Your task to perform on an android device: set the timer Image 0: 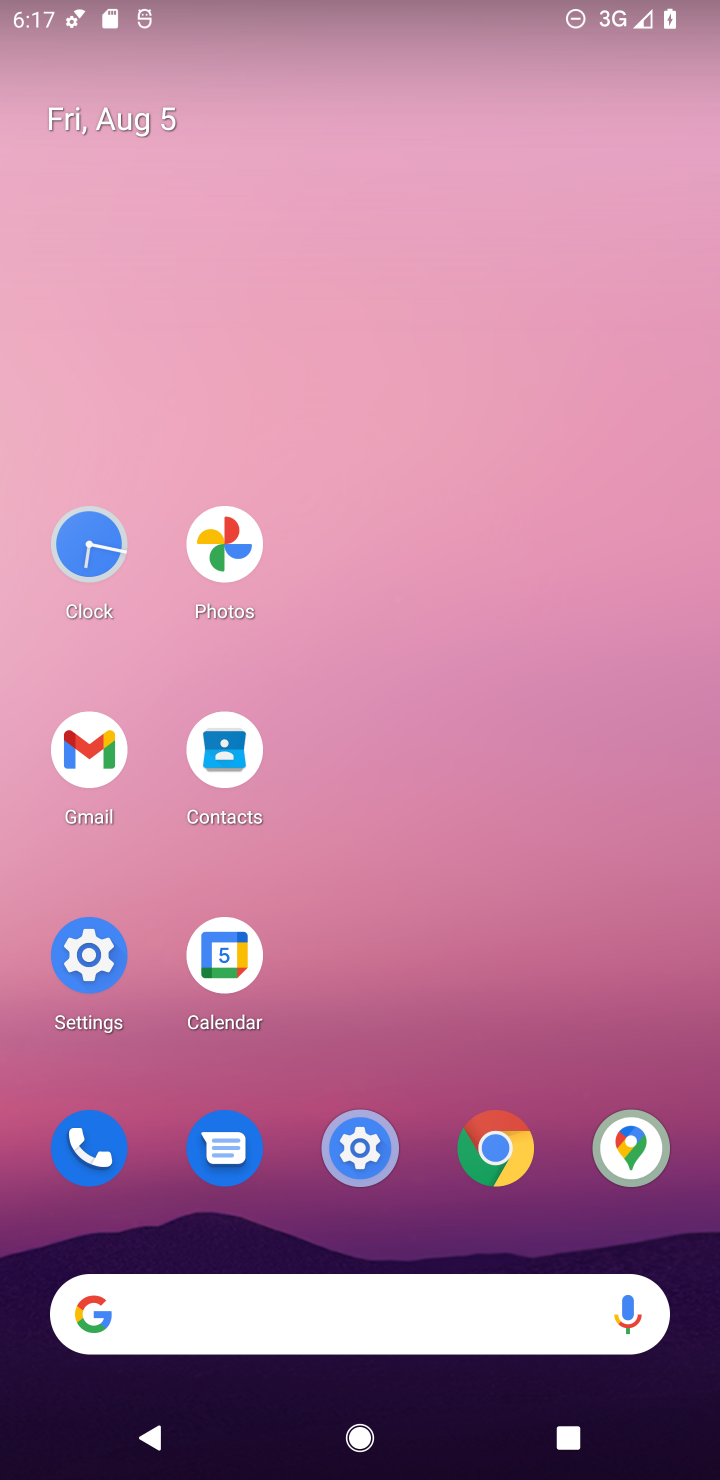
Step 0: click (90, 541)
Your task to perform on an android device: set the timer Image 1: 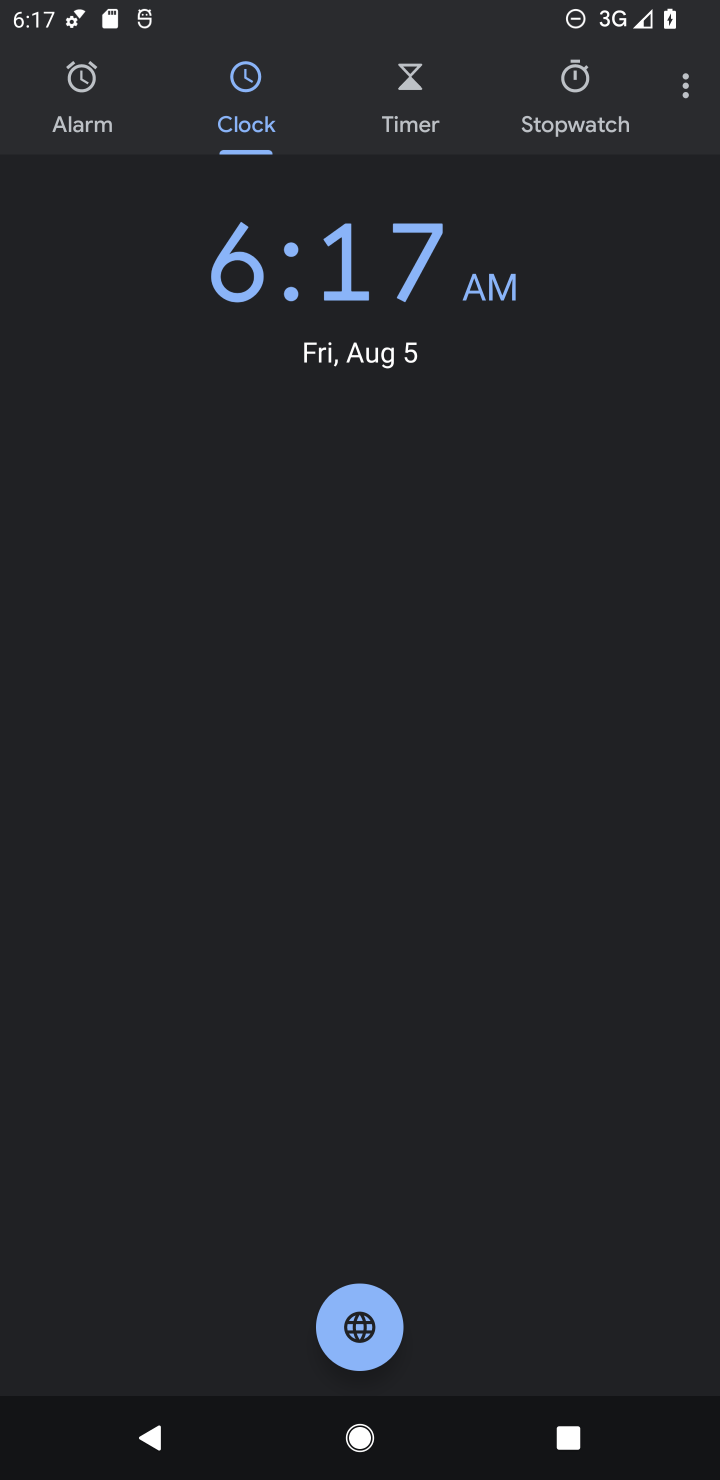
Step 1: click (415, 90)
Your task to perform on an android device: set the timer Image 2: 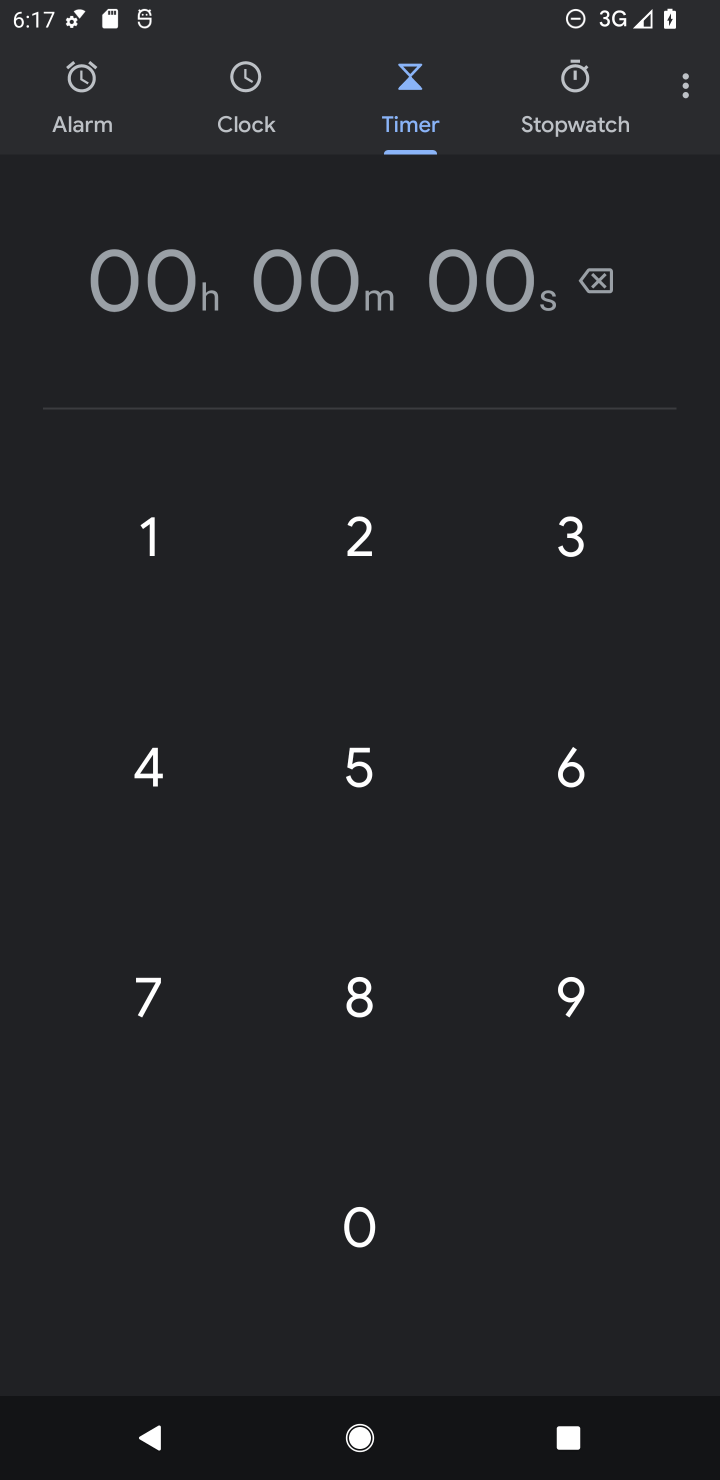
Step 2: click (149, 534)
Your task to perform on an android device: set the timer Image 3: 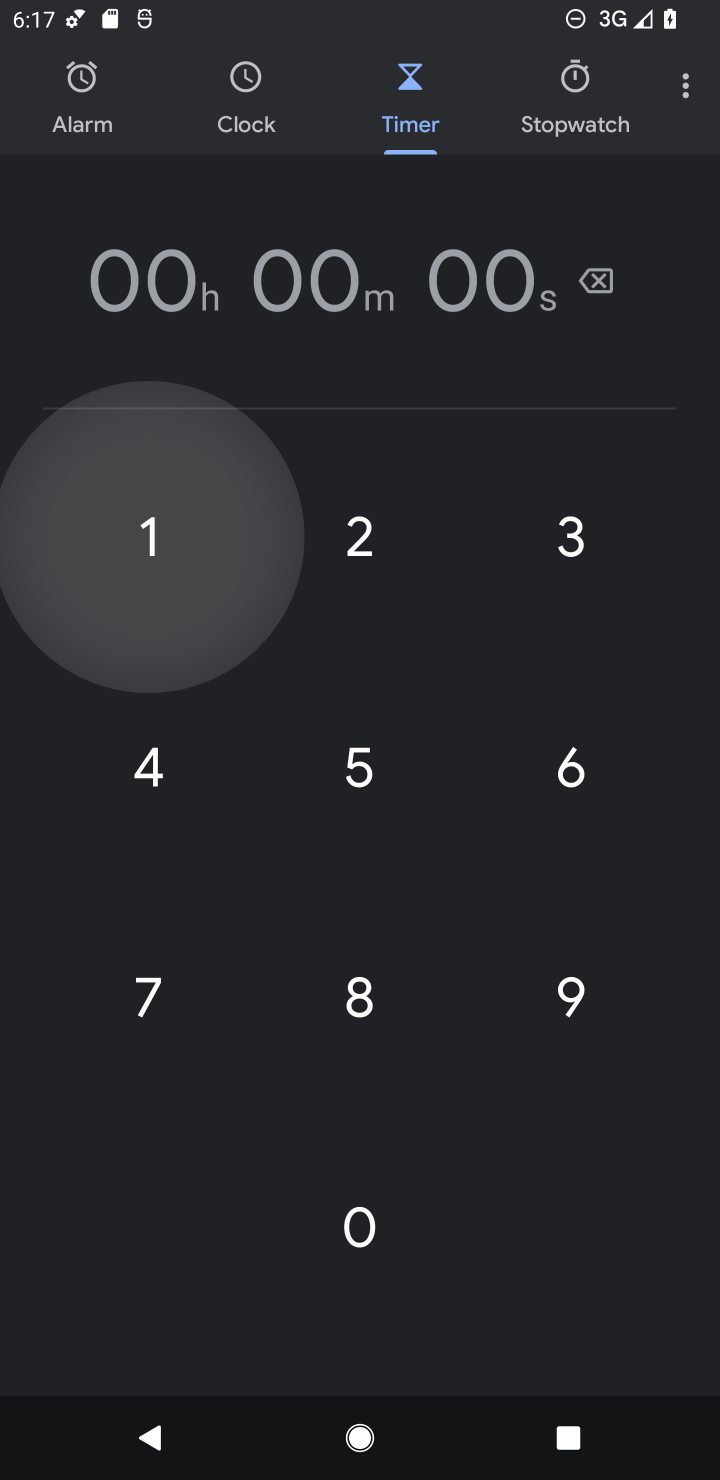
Step 3: click (149, 534)
Your task to perform on an android device: set the timer Image 4: 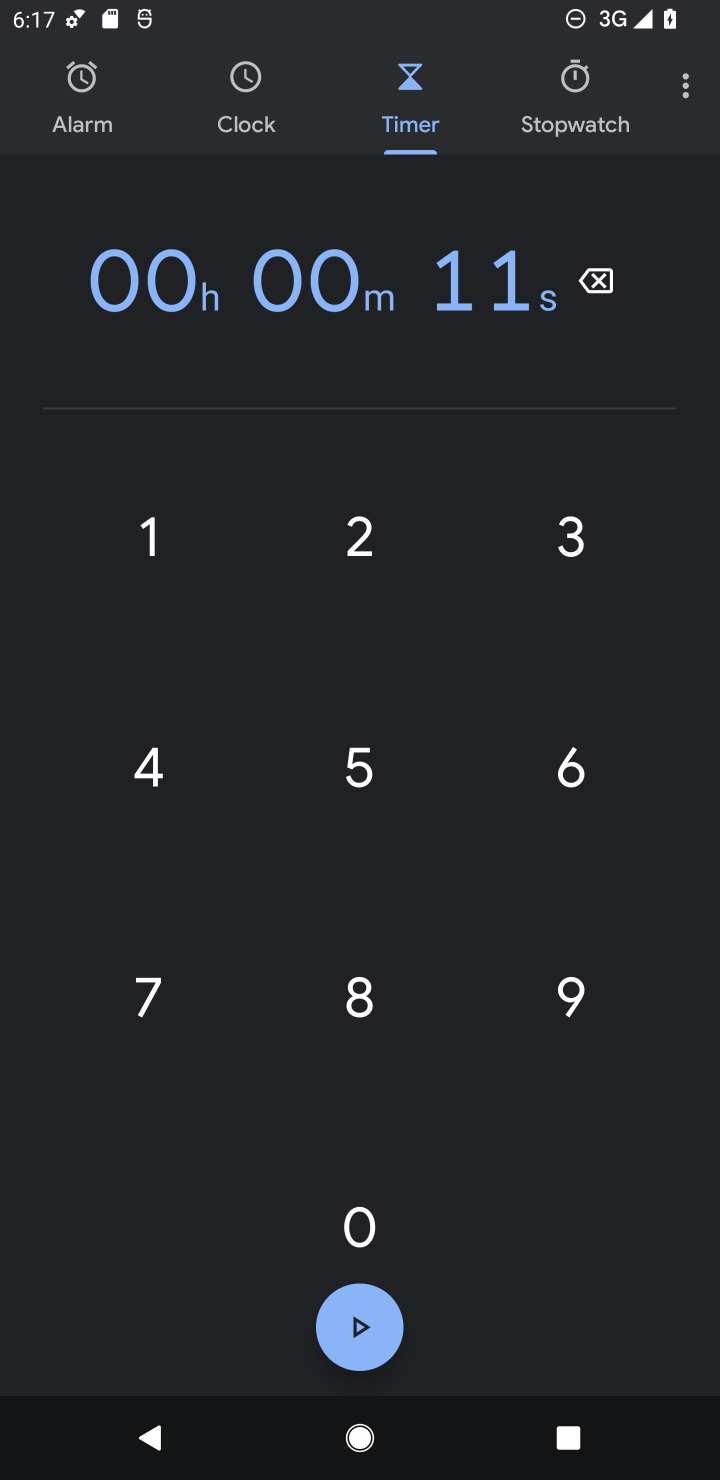
Step 4: click (149, 534)
Your task to perform on an android device: set the timer Image 5: 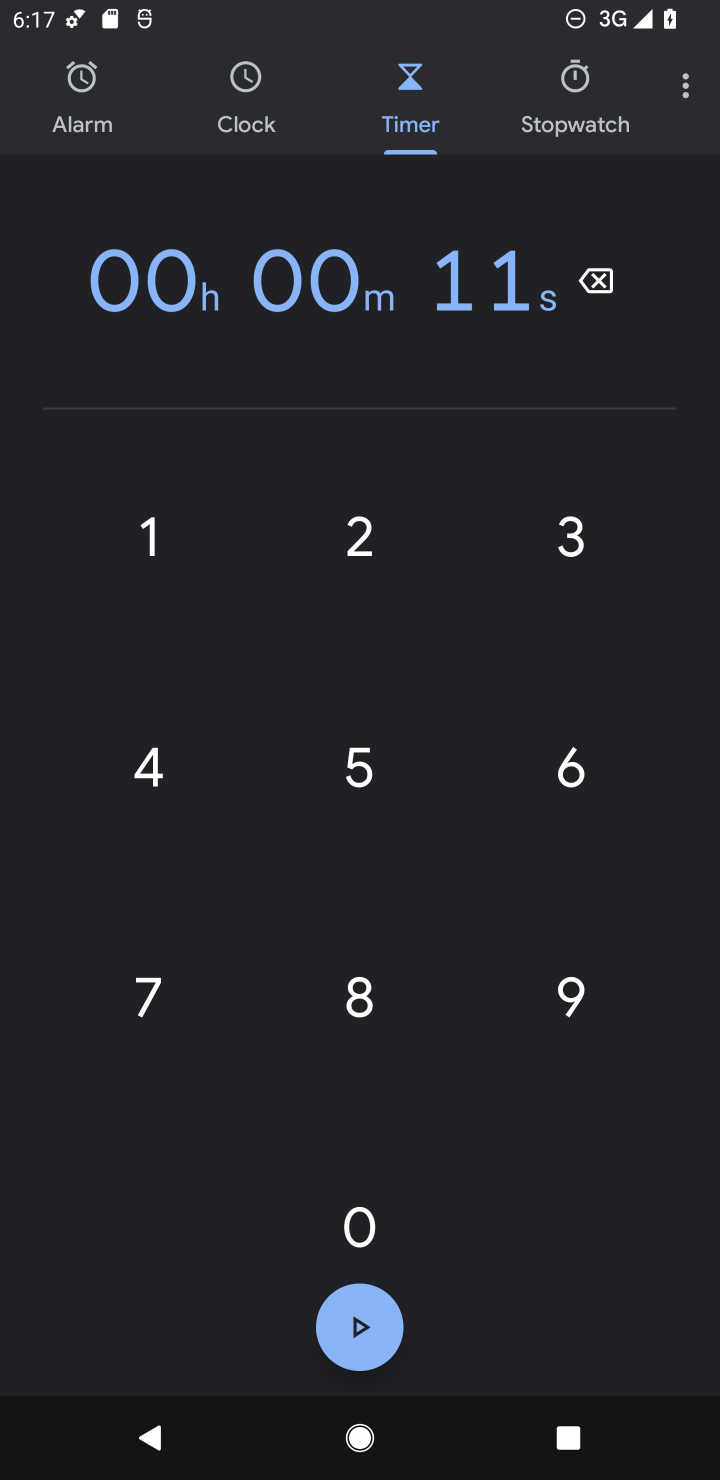
Step 5: click (149, 534)
Your task to perform on an android device: set the timer Image 6: 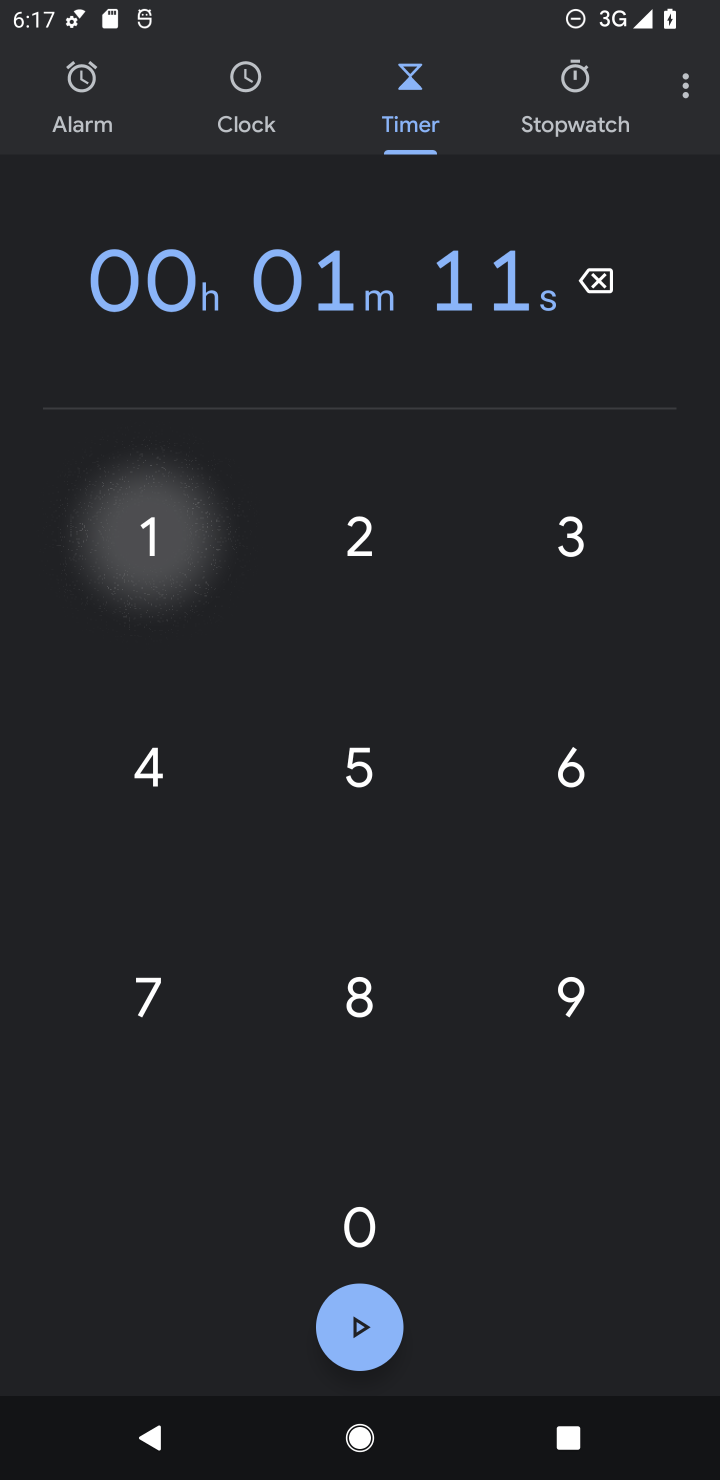
Step 6: click (149, 534)
Your task to perform on an android device: set the timer Image 7: 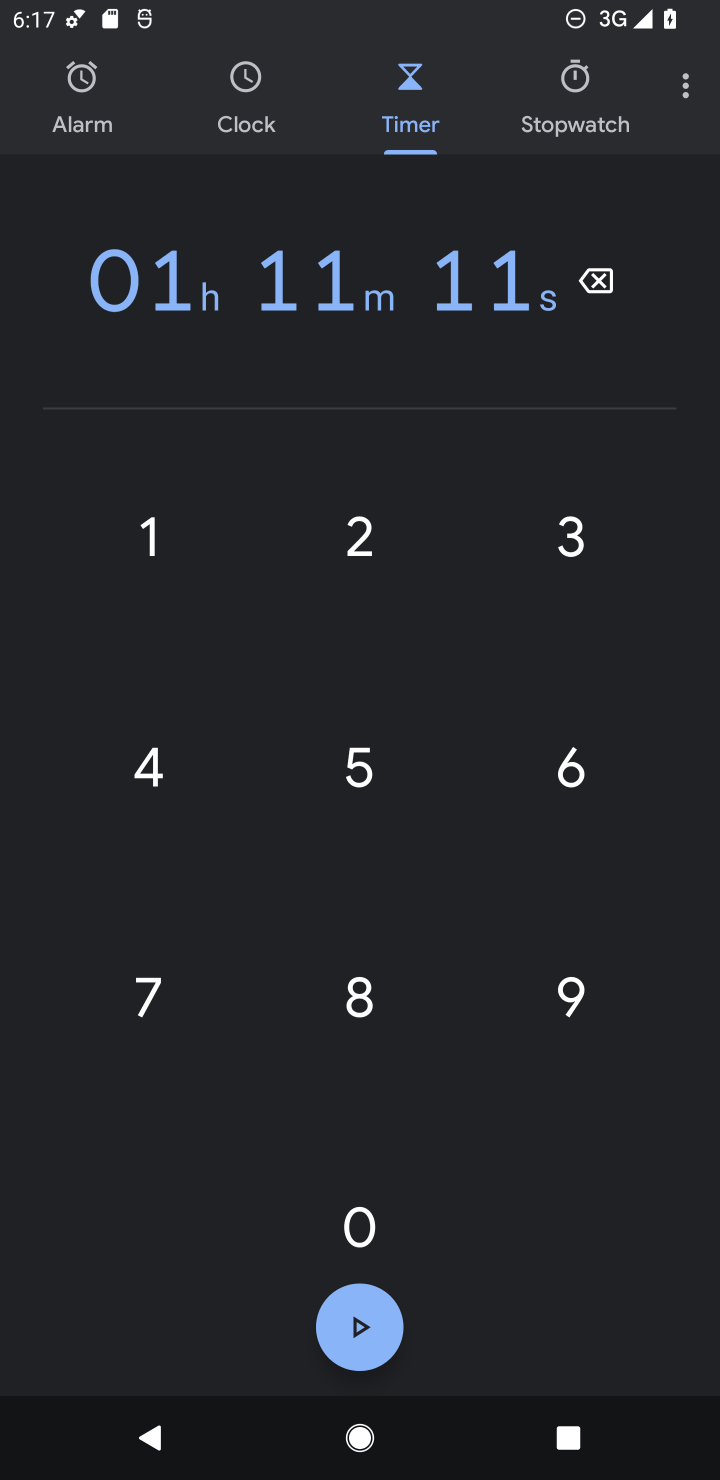
Step 7: click (149, 534)
Your task to perform on an android device: set the timer Image 8: 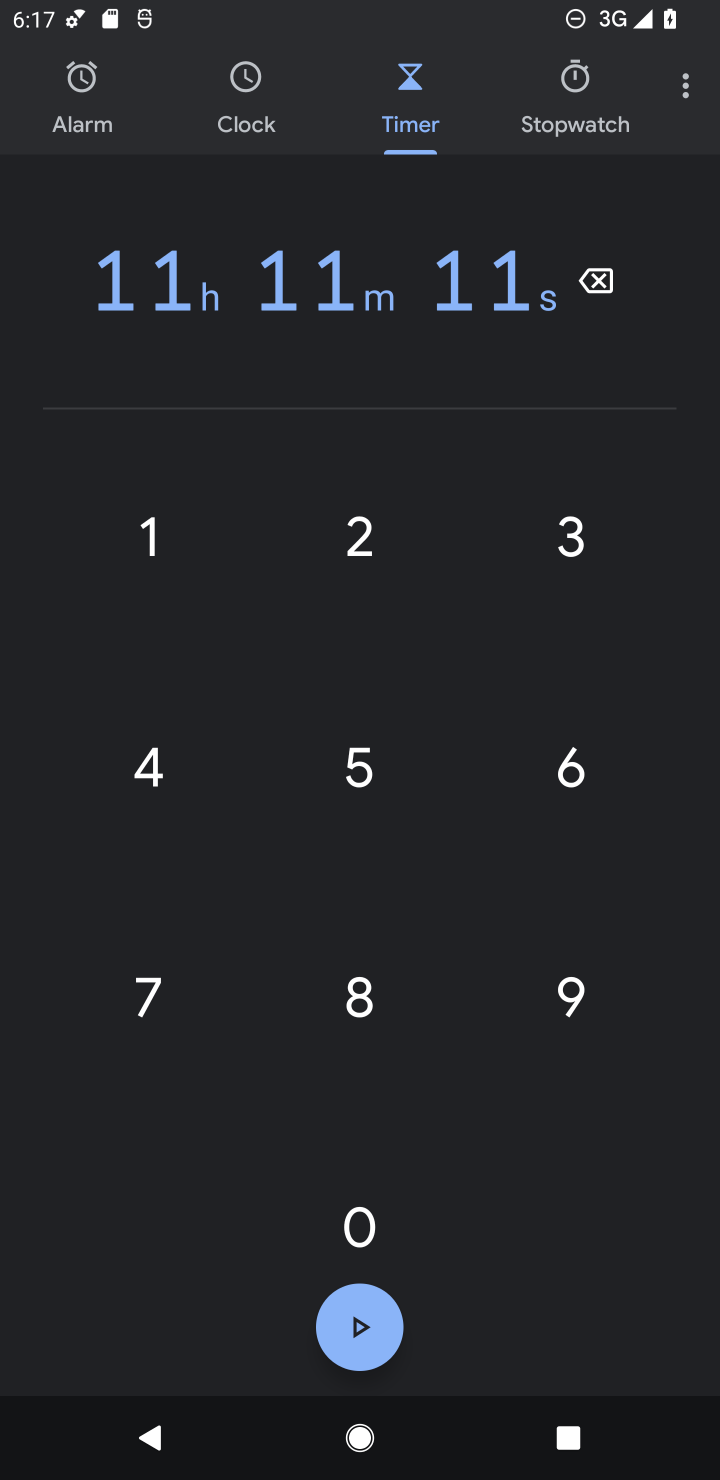
Step 8: task complete